Your task to perform on an android device: Open location settings Image 0: 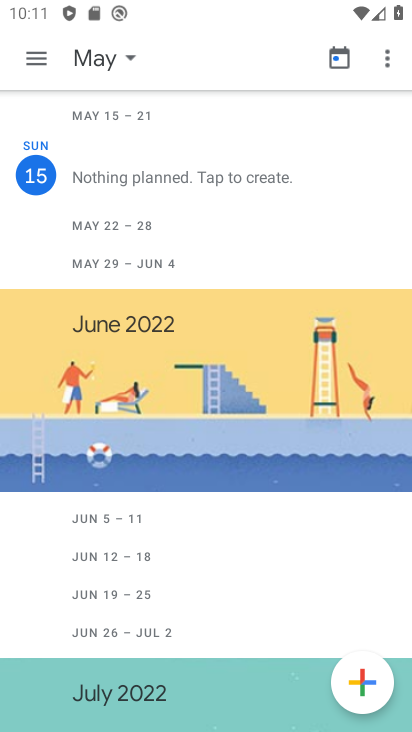
Step 0: press home button
Your task to perform on an android device: Open location settings Image 1: 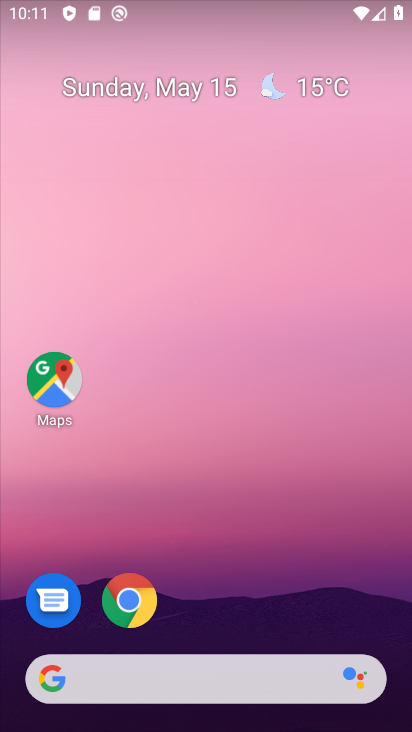
Step 1: drag from (359, 561) to (370, 109)
Your task to perform on an android device: Open location settings Image 2: 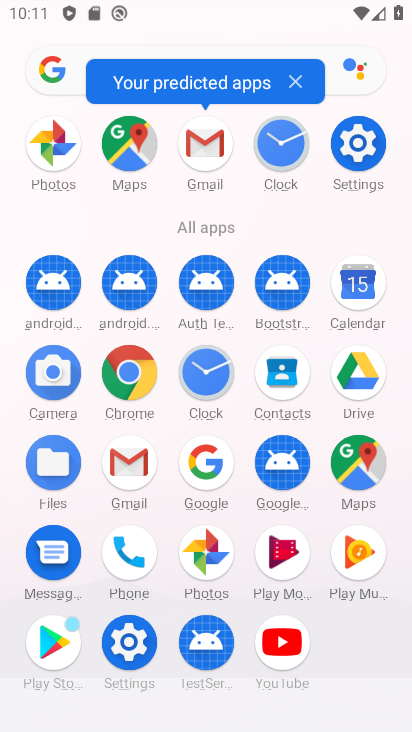
Step 2: click (363, 140)
Your task to perform on an android device: Open location settings Image 3: 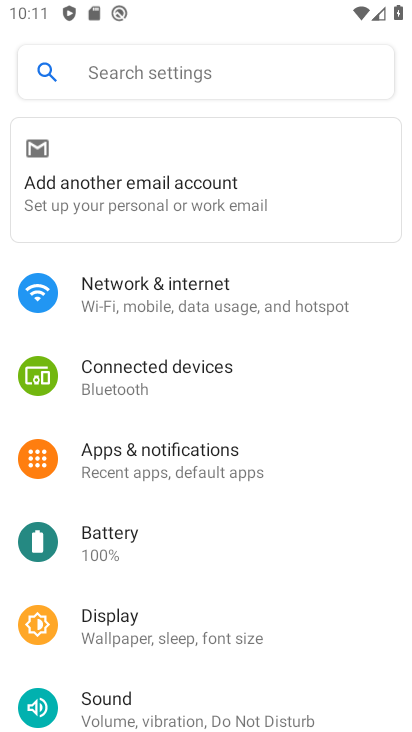
Step 3: drag from (339, 641) to (348, 448)
Your task to perform on an android device: Open location settings Image 4: 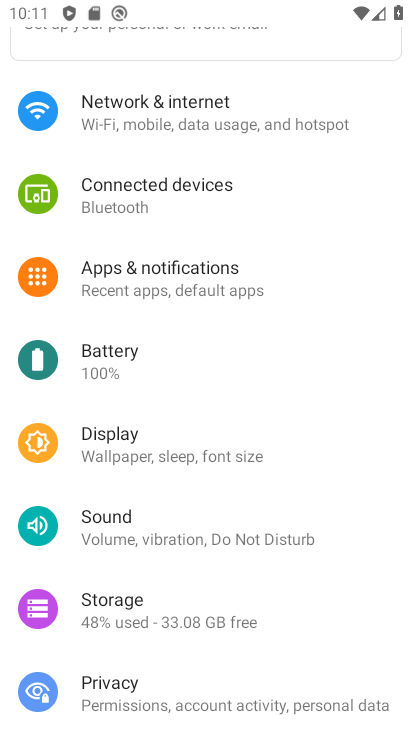
Step 4: drag from (356, 577) to (372, 377)
Your task to perform on an android device: Open location settings Image 5: 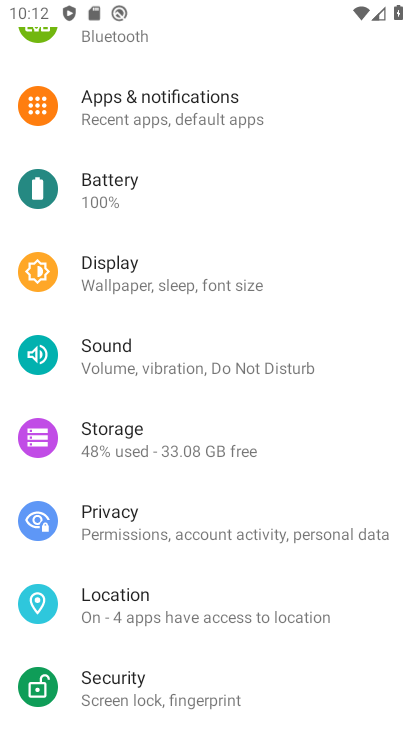
Step 5: drag from (330, 659) to (350, 410)
Your task to perform on an android device: Open location settings Image 6: 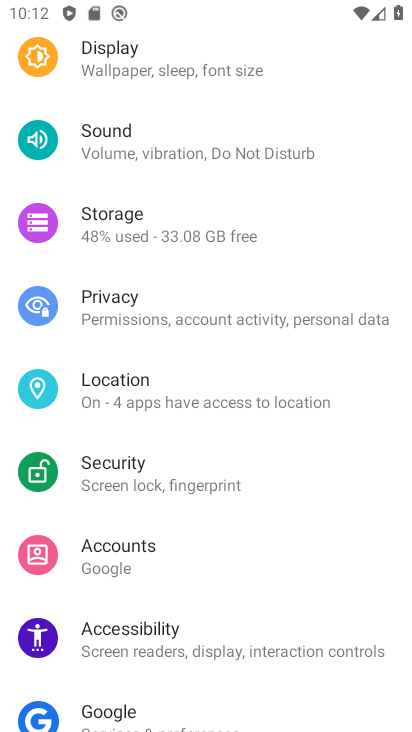
Step 6: drag from (309, 688) to (329, 489)
Your task to perform on an android device: Open location settings Image 7: 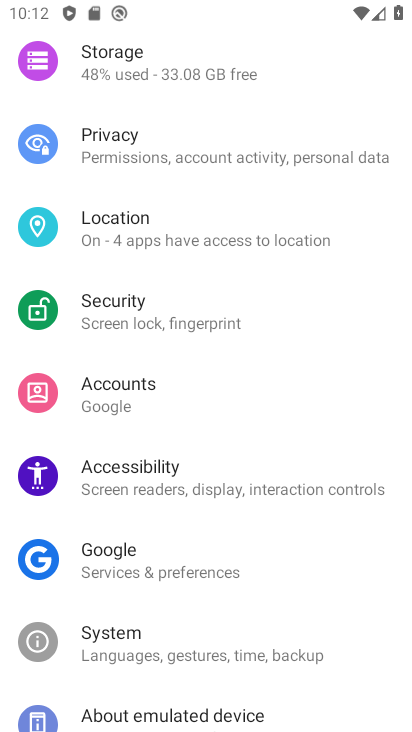
Step 7: click (229, 231)
Your task to perform on an android device: Open location settings Image 8: 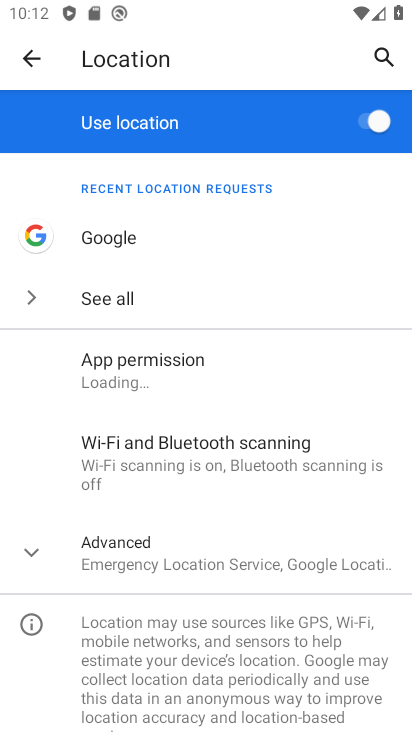
Step 8: task complete